Your task to perform on an android device: check battery use Image 0: 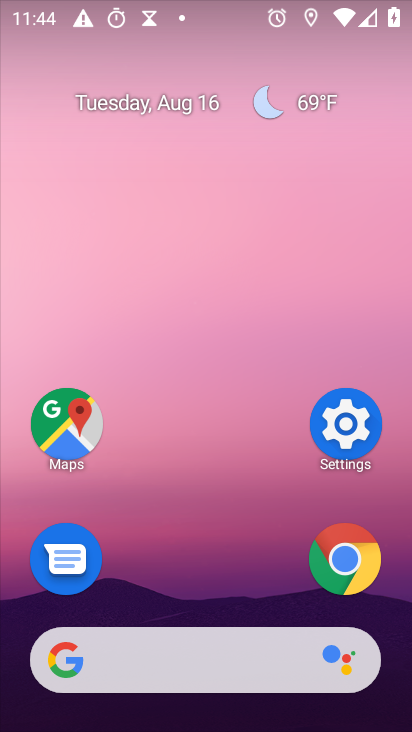
Step 0: click (343, 427)
Your task to perform on an android device: check battery use Image 1: 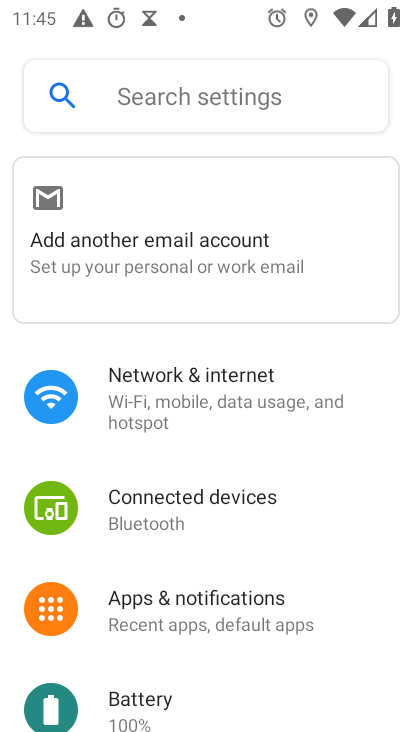
Step 1: drag from (236, 651) to (333, 305)
Your task to perform on an android device: check battery use Image 2: 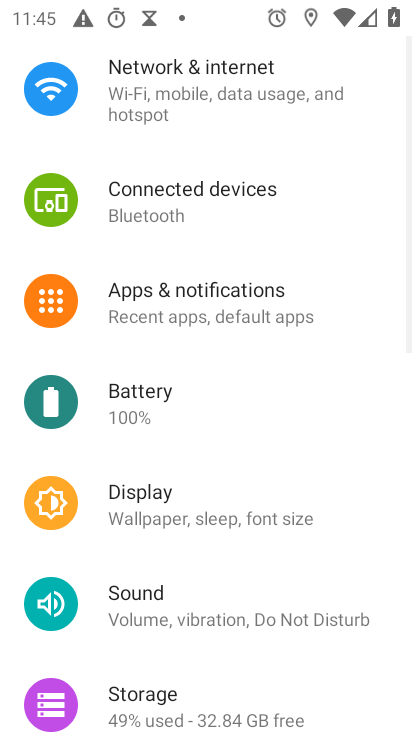
Step 2: click (150, 403)
Your task to perform on an android device: check battery use Image 3: 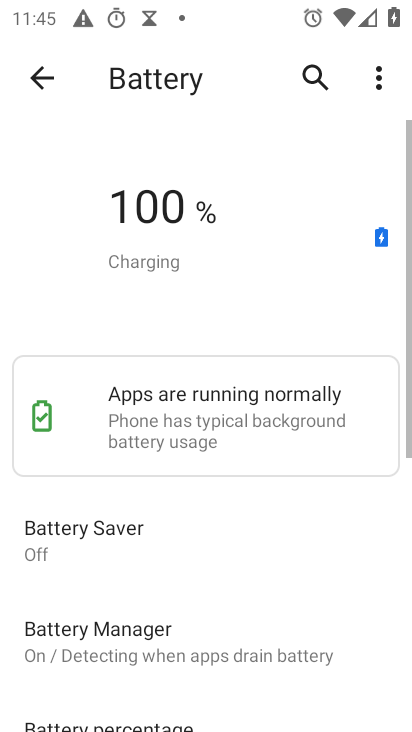
Step 3: click (378, 80)
Your task to perform on an android device: check battery use Image 4: 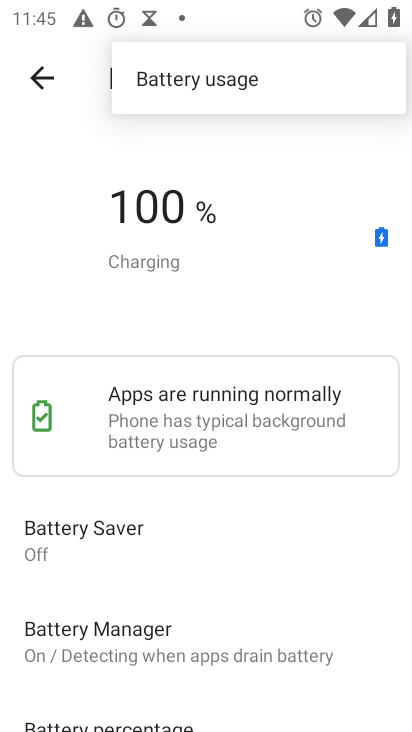
Step 4: click (201, 75)
Your task to perform on an android device: check battery use Image 5: 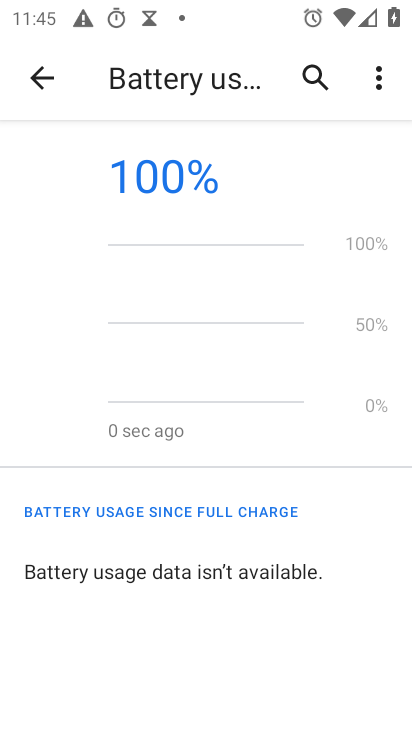
Step 5: task complete